Your task to perform on an android device: clear all cookies in the chrome app Image 0: 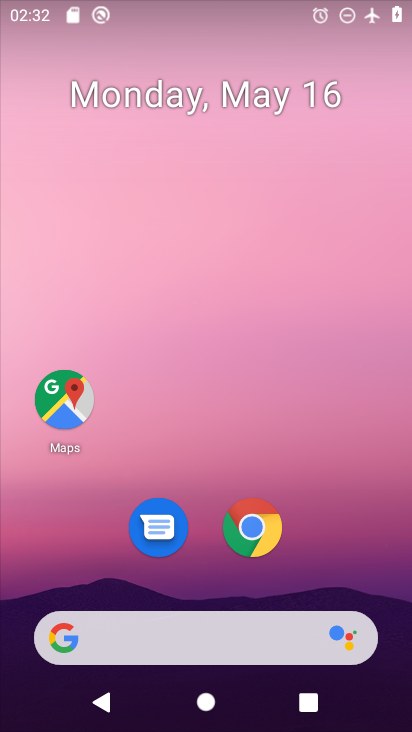
Step 0: click (259, 543)
Your task to perform on an android device: clear all cookies in the chrome app Image 1: 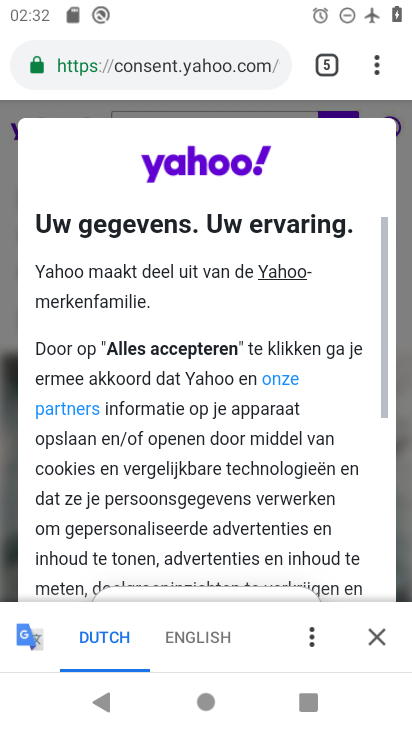
Step 1: click (384, 66)
Your task to perform on an android device: clear all cookies in the chrome app Image 2: 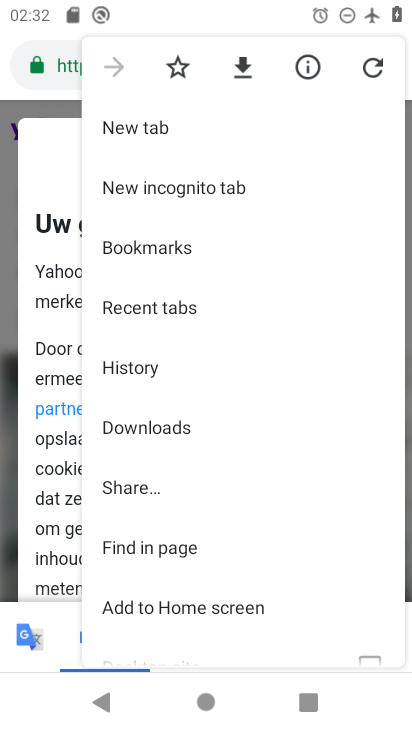
Step 2: drag from (207, 505) to (217, 294)
Your task to perform on an android device: clear all cookies in the chrome app Image 3: 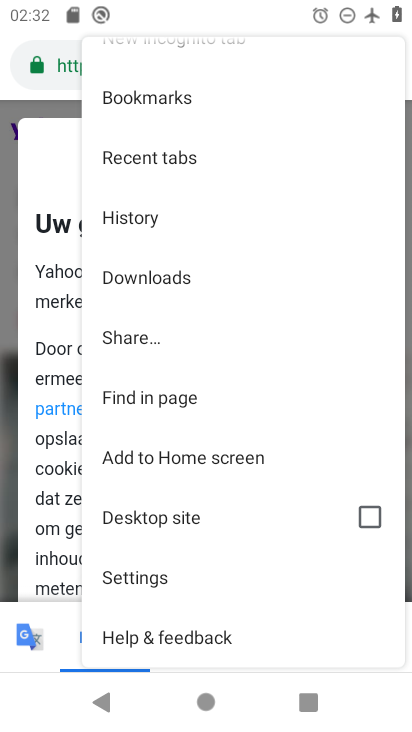
Step 3: click (178, 570)
Your task to perform on an android device: clear all cookies in the chrome app Image 4: 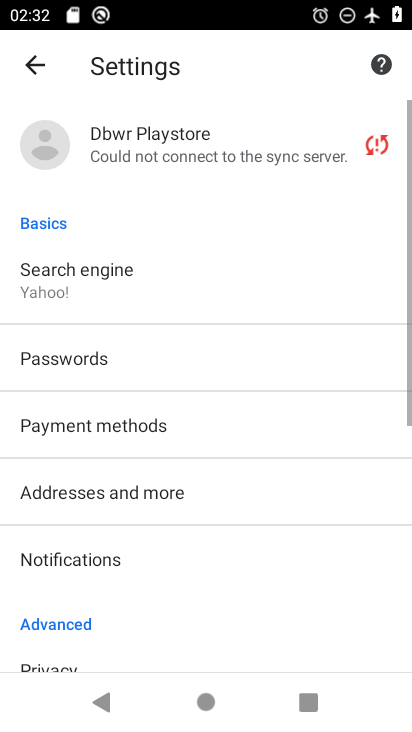
Step 4: drag from (178, 570) to (199, 226)
Your task to perform on an android device: clear all cookies in the chrome app Image 5: 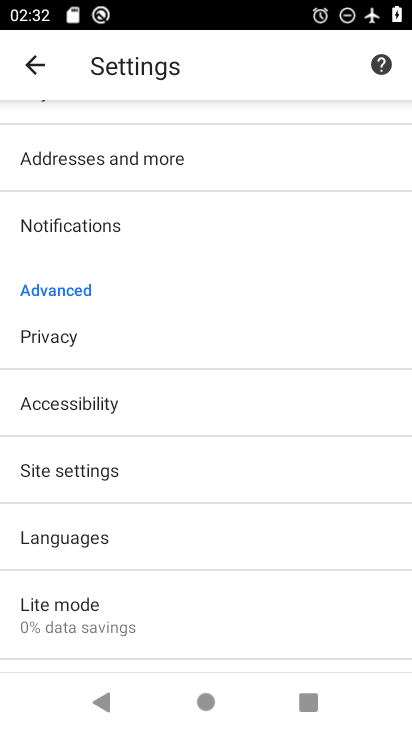
Step 5: click (194, 484)
Your task to perform on an android device: clear all cookies in the chrome app Image 6: 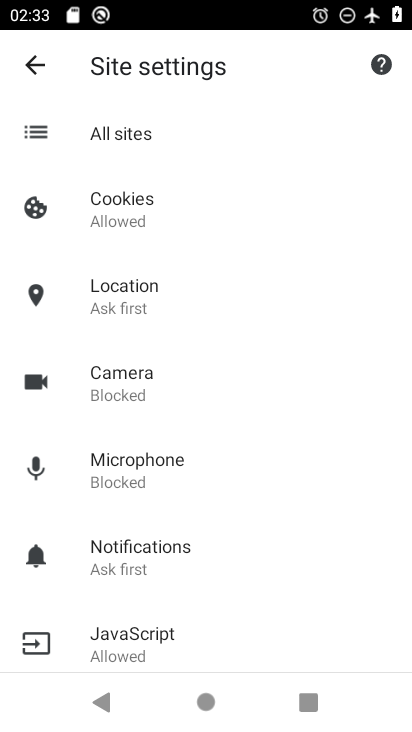
Step 6: click (33, 76)
Your task to perform on an android device: clear all cookies in the chrome app Image 7: 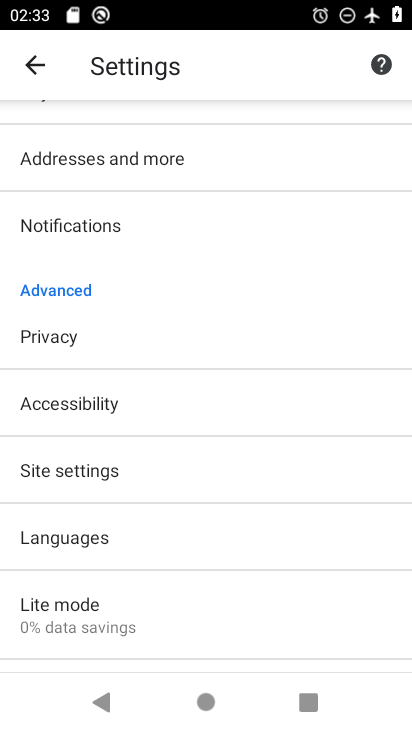
Step 7: click (40, 88)
Your task to perform on an android device: clear all cookies in the chrome app Image 8: 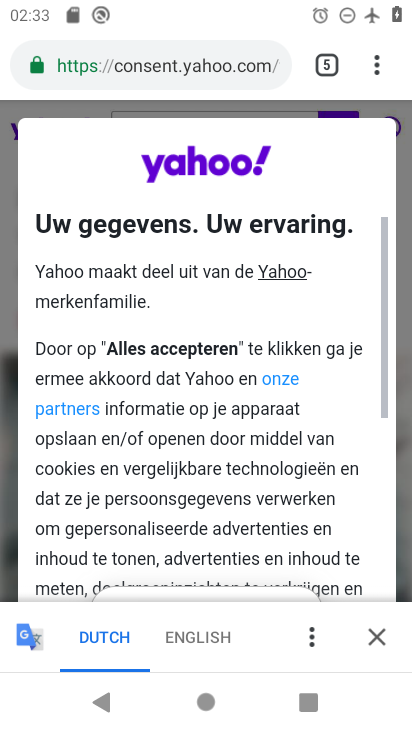
Step 8: click (375, 75)
Your task to perform on an android device: clear all cookies in the chrome app Image 9: 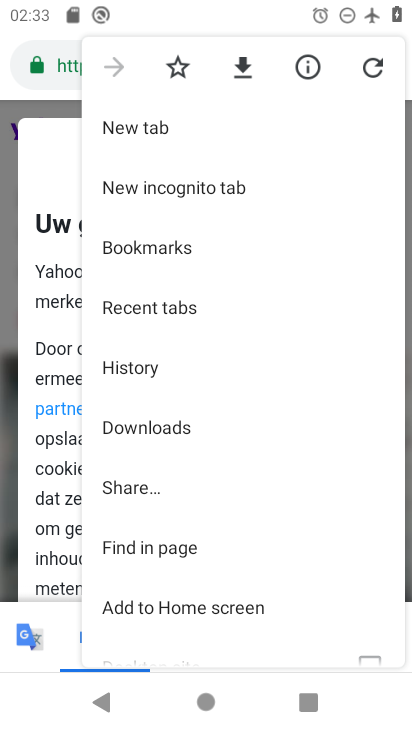
Step 9: drag from (185, 533) to (225, 346)
Your task to perform on an android device: clear all cookies in the chrome app Image 10: 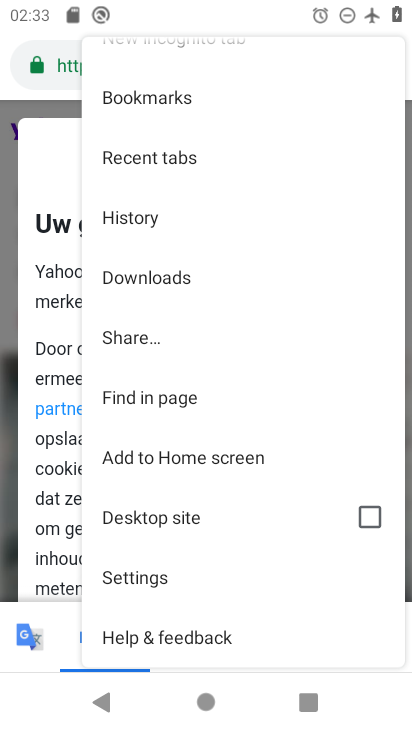
Step 10: click (205, 559)
Your task to perform on an android device: clear all cookies in the chrome app Image 11: 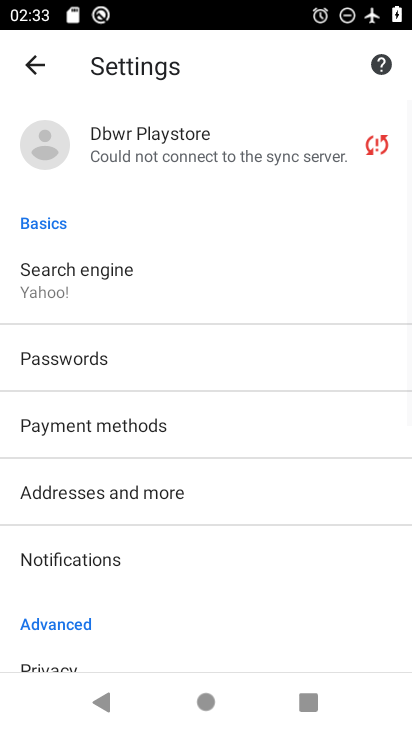
Step 11: drag from (205, 505) to (219, 276)
Your task to perform on an android device: clear all cookies in the chrome app Image 12: 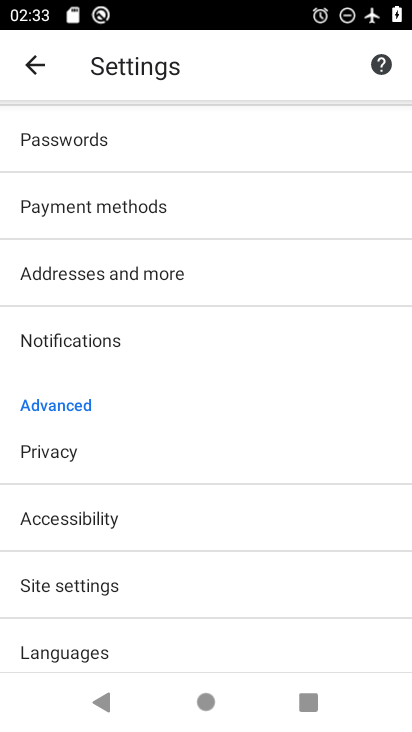
Step 12: drag from (140, 532) to (170, 355)
Your task to perform on an android device: clear all cookies in the chrome app Image 13: 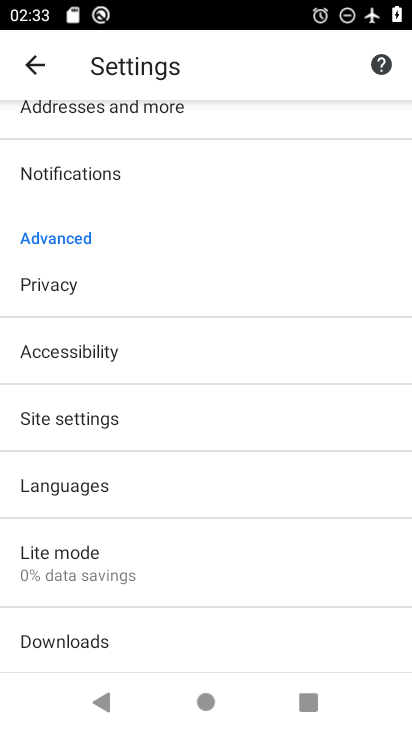
Step 13: drag from (167, 418) to (158, 619)
Your task to perform on an android device: clear all cookies in the chrome app Image 14: 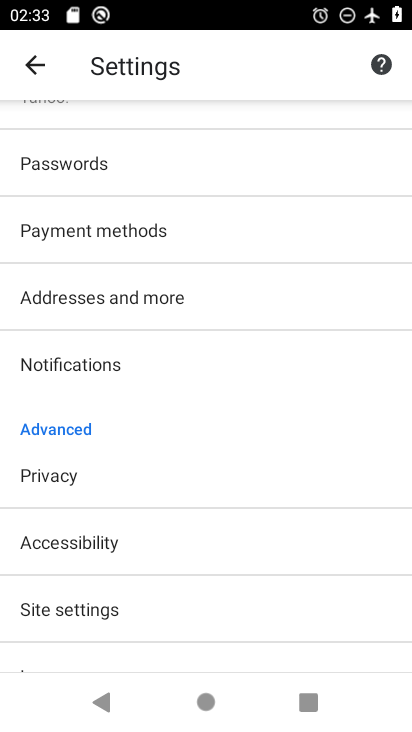
Step 14: click (44, 54)
Your task to perform on an android device: clear all cookies in the chrome app Image 15: 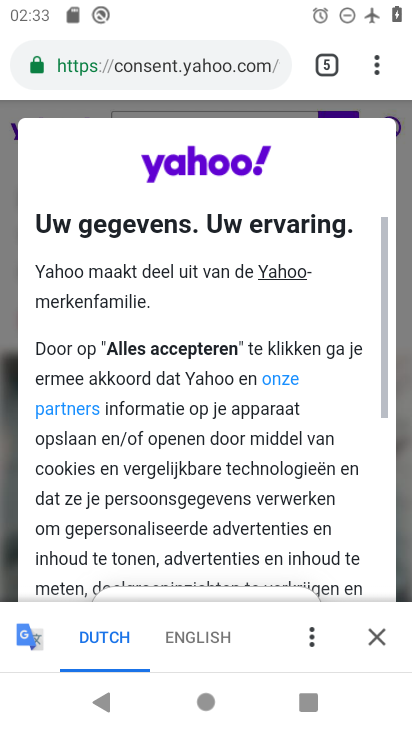
Step 15: click (381, 74)
Your task to perform on an android device: clear all cookies in the chrome app Image 16: 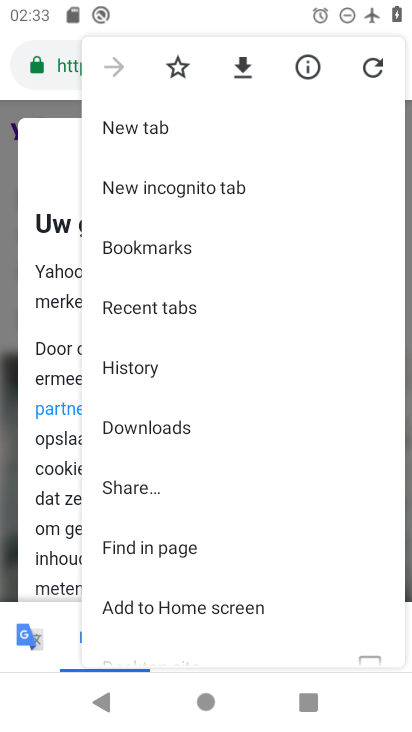
Step 16: click (191, 350)
Your task to perform on an android device: clear all cookies in the chrome app Image 17: 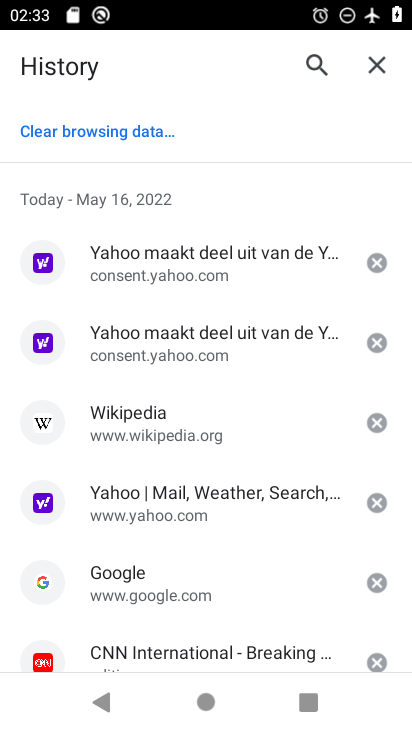
Step 17: click (85, 136)
Your task to perform on an android device: clear all cookies in the chrome app Image 18: 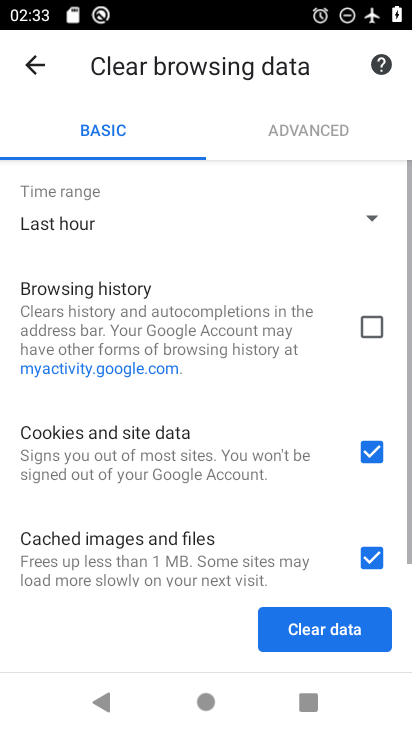
Step 18: click (368, 542)
Your task to perform on an android device: clear all cookies in the chrome app Image 19: 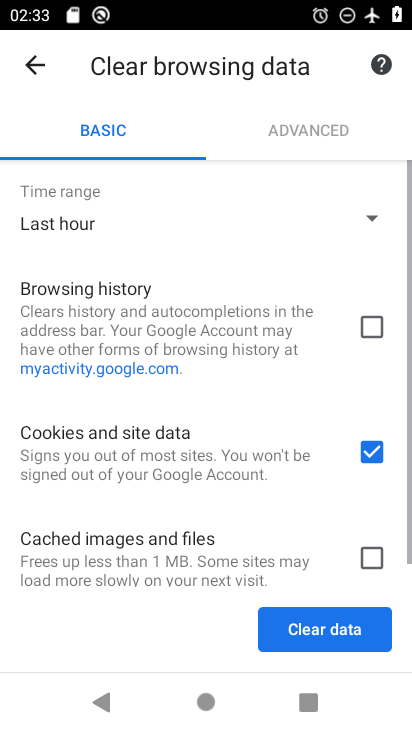
Step 19: click (350, 635)
Your task to perform on an android device: clear all cookies in the chrome app Image 20: 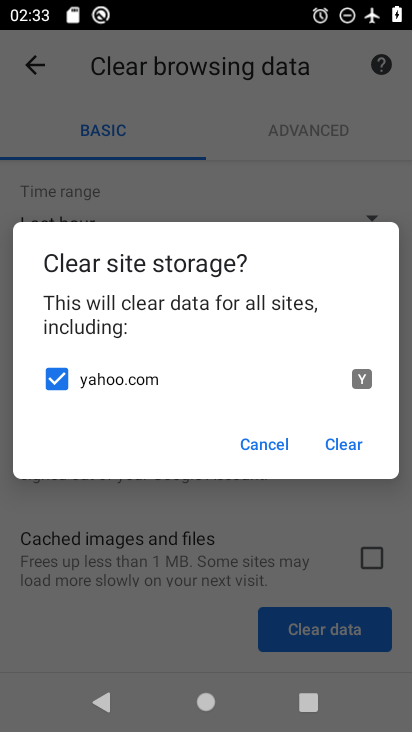
Step 20: click (332, 452)
Your task to perform on an android device: clear all cookies in the chrome app Image 21: 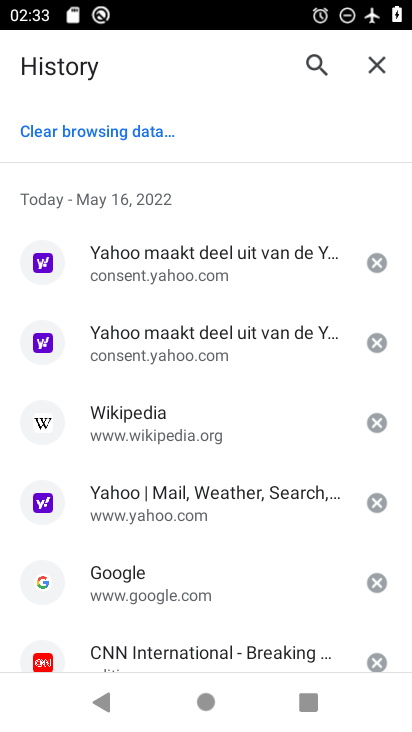
Step 21: task complete